Your task to perform on an android device: Search for vegetarian restaurants on Maps Image 0: 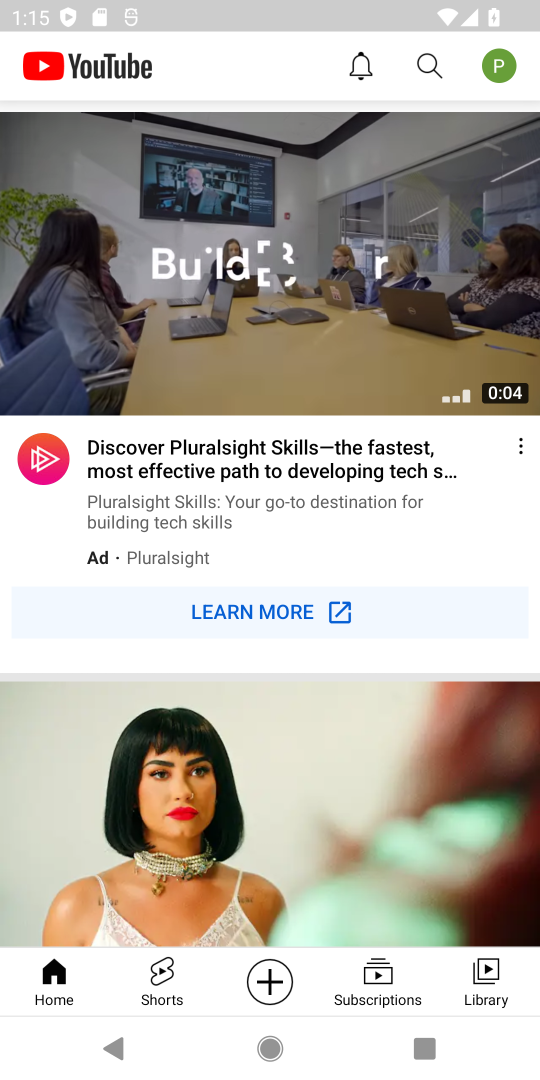
Step 0: press home button
Your task to perform on an android device: Search for vegetarian restaurants on Maps Image 1: 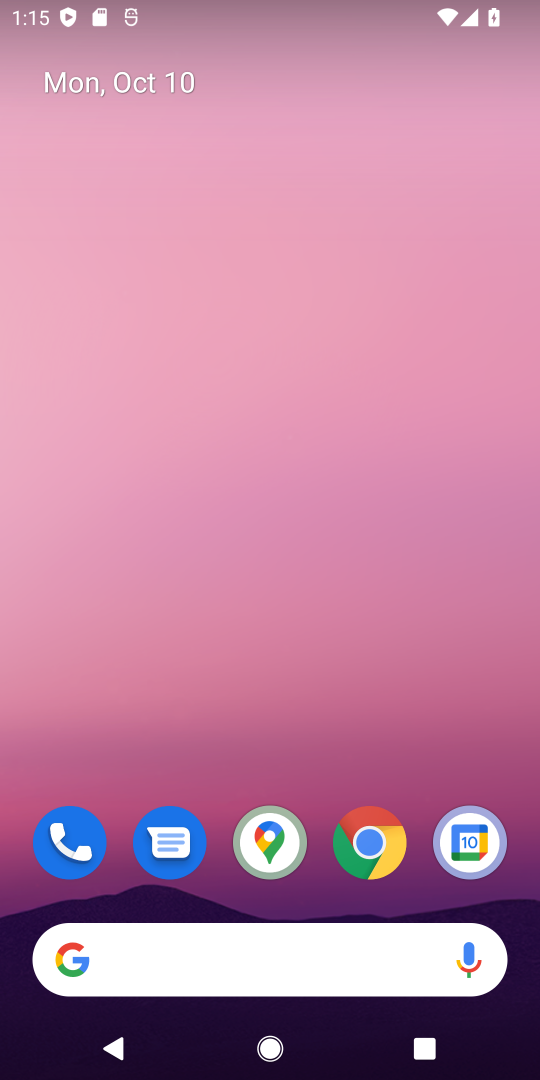
Step 1: click (372, 856)
Your task to perform on an android device: Search for vegetarian restaurants on Maps Image 2: 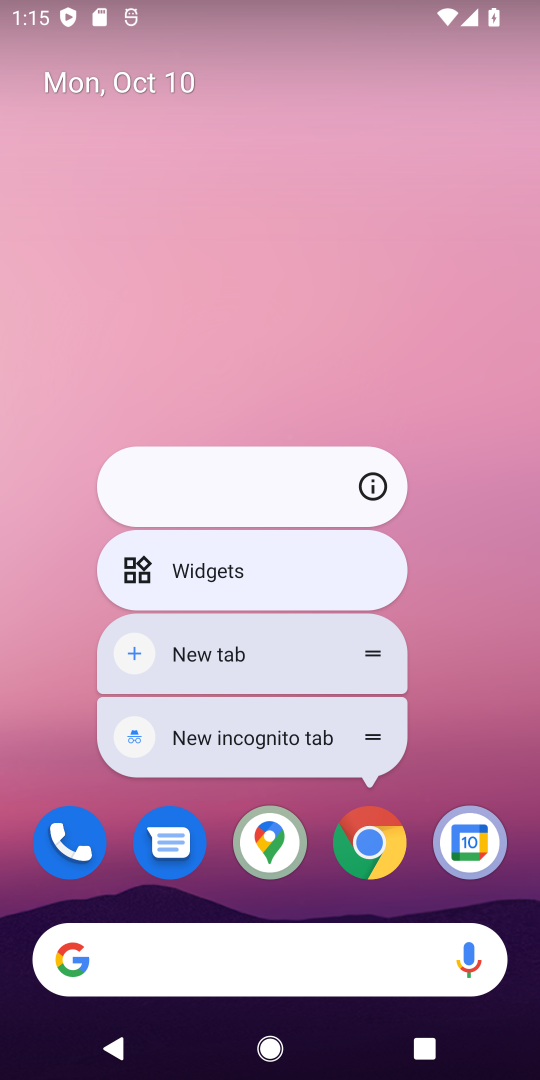
Step 2: click (265, 840)
Your task to perform on an android device: Search for vegetarian restaurants on Maps Image 3: 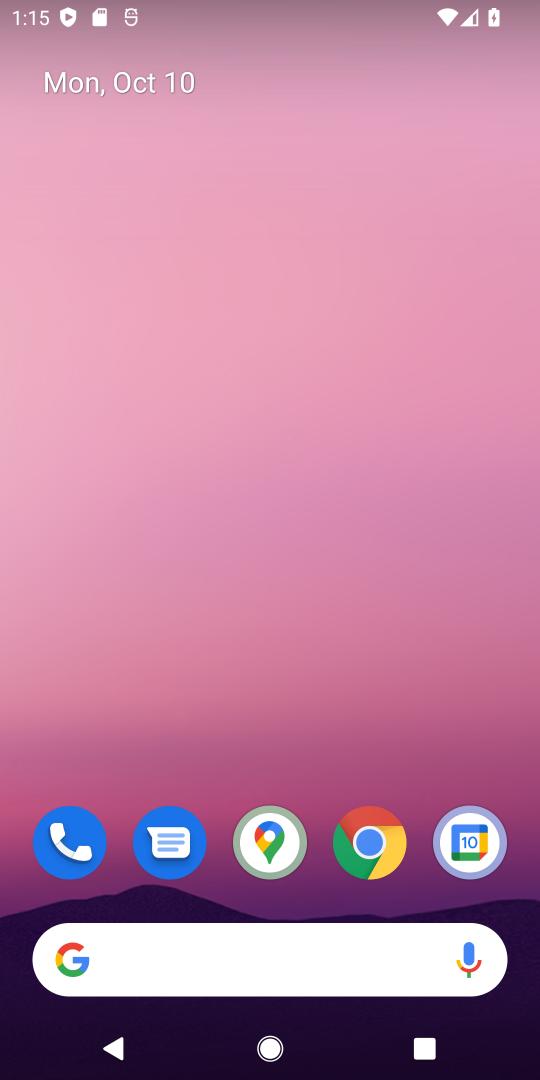
Step 3: click (283, 853)
Your task to perform on an android device: Search for vegetarian restaurants on Maps Image 4: 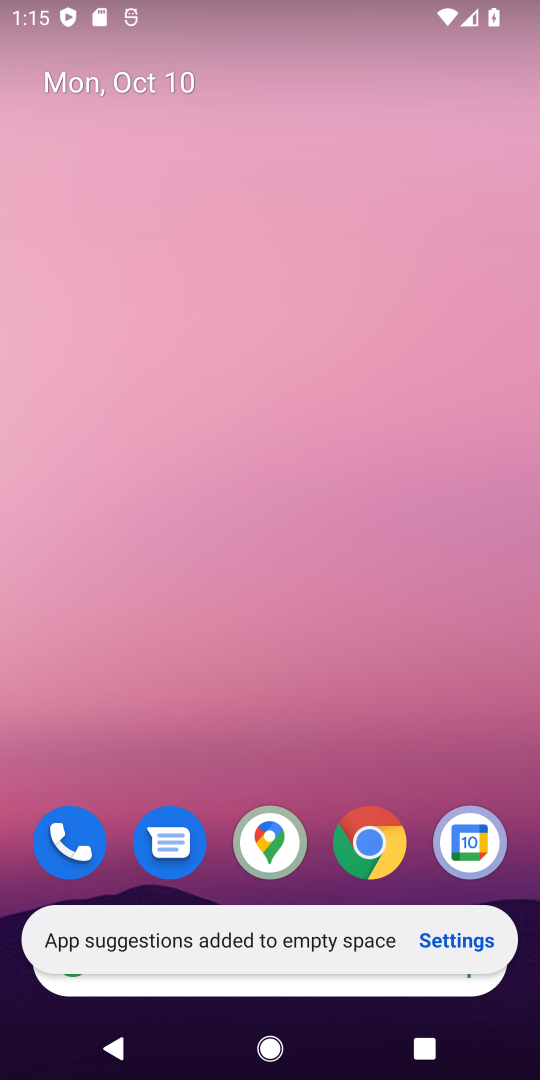
Step 4: click (281, 853)
Your task to perform on an android device: Search for vegetarian restaurants on Maps Image 5: 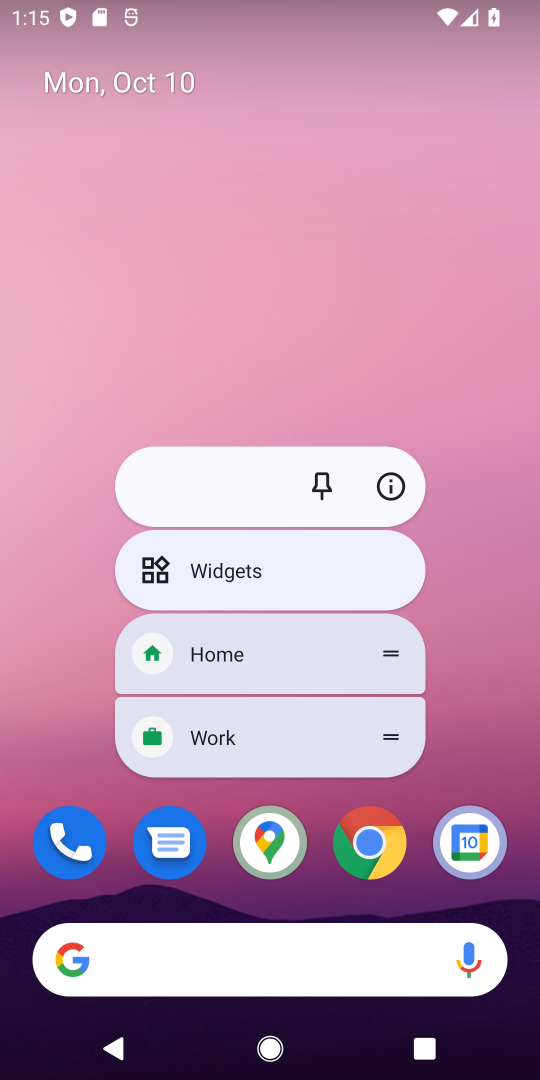
Step 5: click (275, 842)
Your task to perform on an android device: Search for vegetarian restaurants on Maps Image 6: 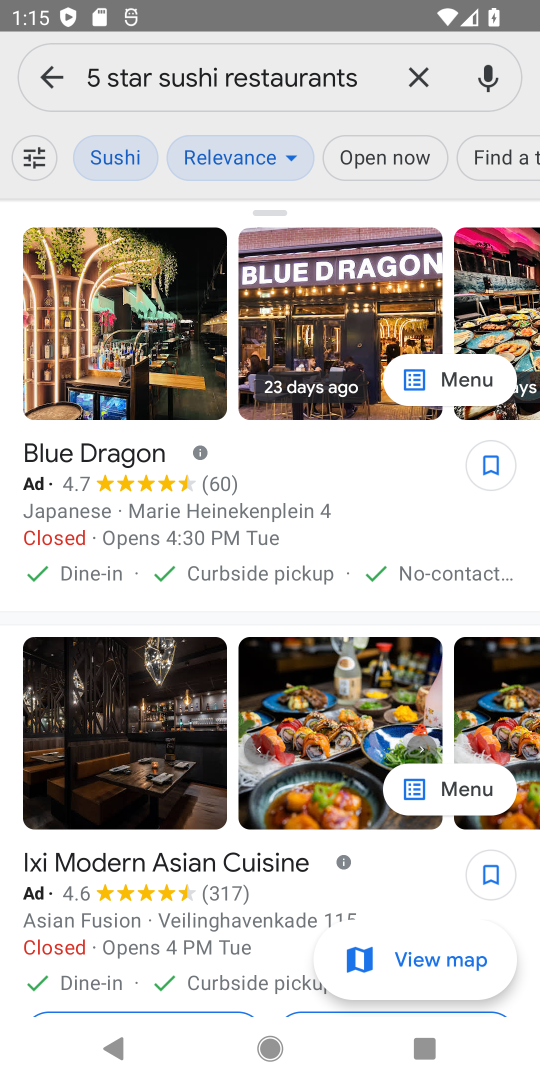
Step 6: click (410, 83)
Your task to perform on an android device: Search for vegetarian restaurants on Maps Image 7: 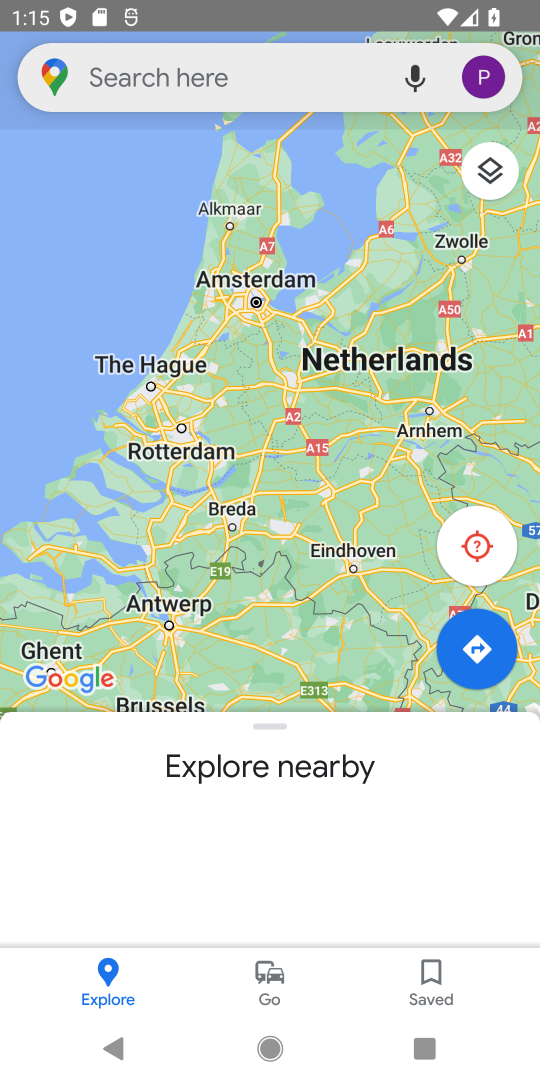
Step 7: click (319, 76)
Your task to perform on an android device: Search for vegetarian restaurants on Maps Image 8: 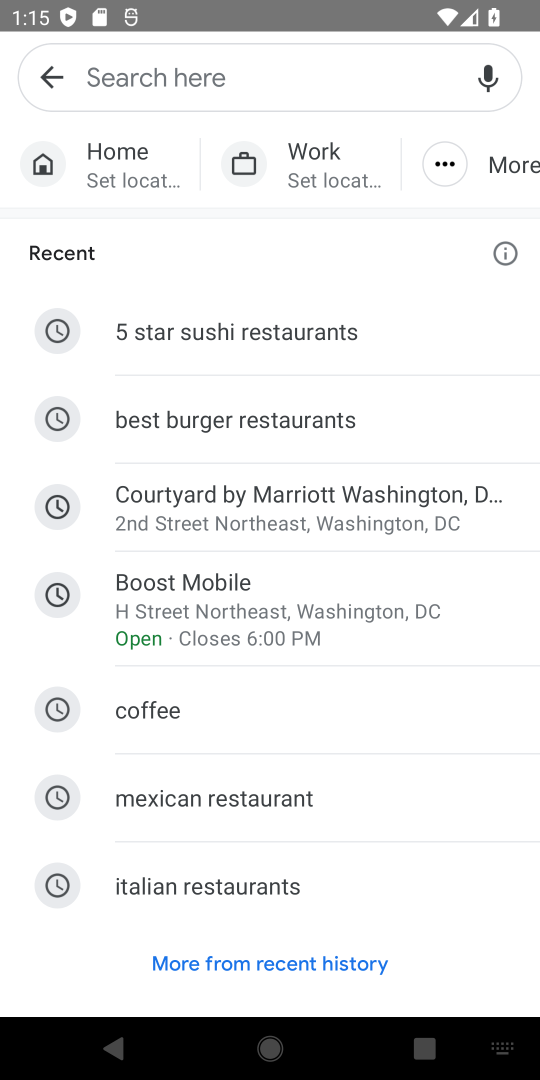
Step 8: type "vegeterian restaurants"
Your task to perform on an android device: Search for vegetarian restaurants on Maps Image 9: 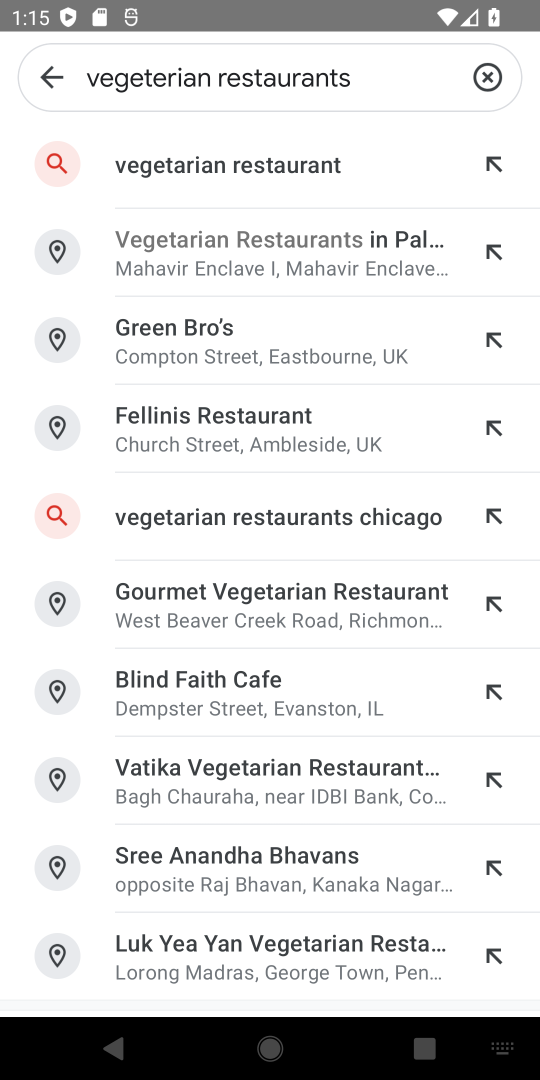
Step 9: press enter
Your task to perform on an android device: Search for vegetarian restaurants on Maps Image 10: 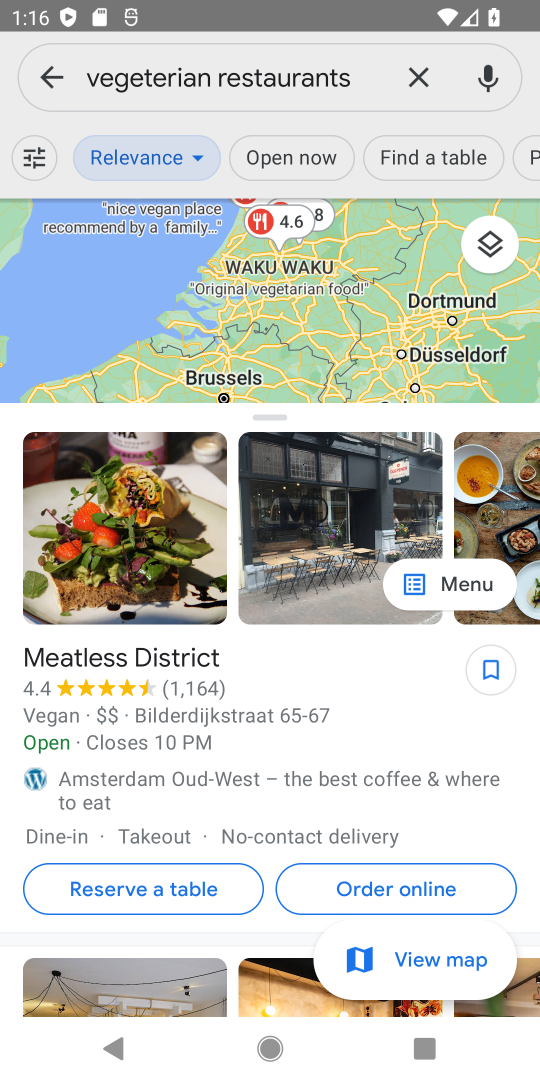
Step 10: task complete